Your task to perform on an android device: turn pop-ups off in chrome Image 0: 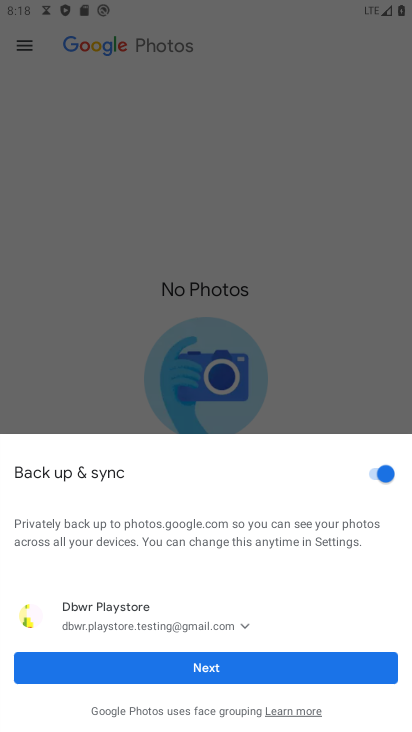
Step 0: press home button
Your task to perform on an android device: turn pop-ups off in chrome Image 1: 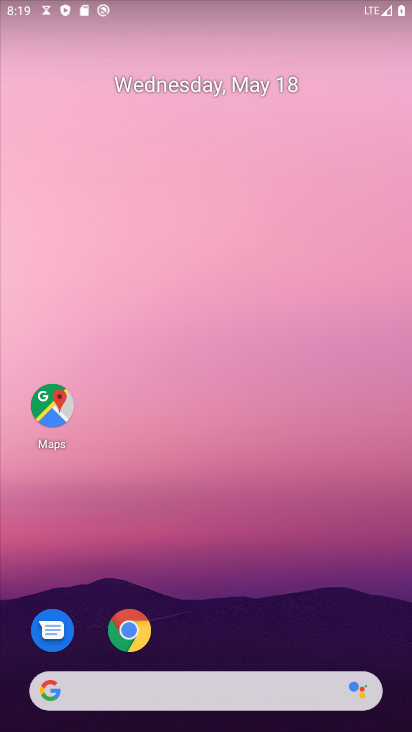
Step 1: drag from (294, 524) to (372, 65)
Your task to perform on an android device: turn pop-ups off in chrome Image 2: 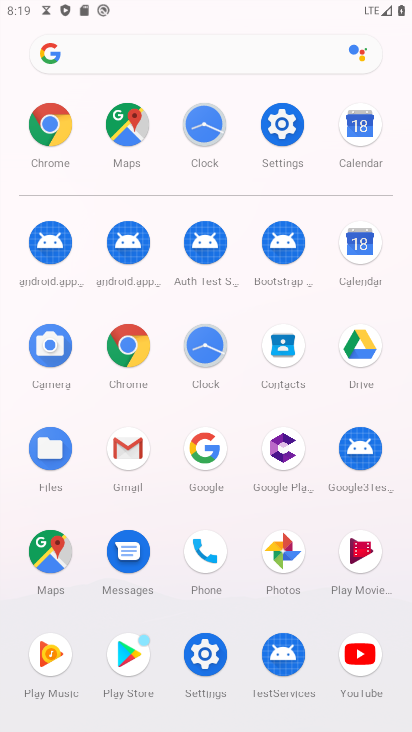
Step 2: click (53, 120)
Your task to perform on an android device: turn pop-ups off in chrome Image 3: 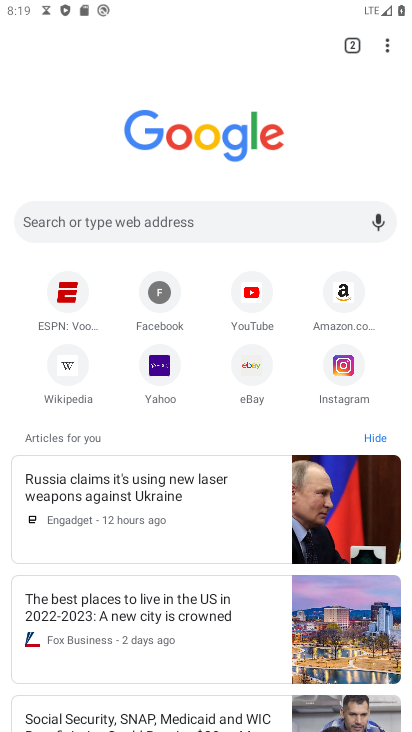
Step 3: drag from (400, 43) to (223, 378)
Your task to perform on an android device: turn pop-ups off in chrome Image 4: 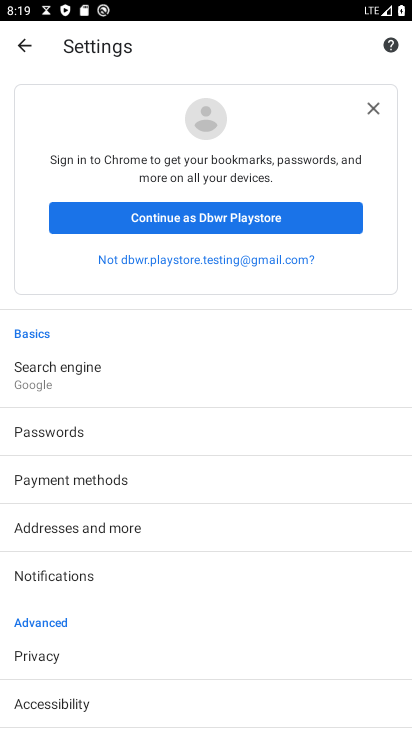
Step 4: drag from (163, 574) to (232, 261)
Your task to perform on an android device: turn pop-ups off in chrome Image 5: 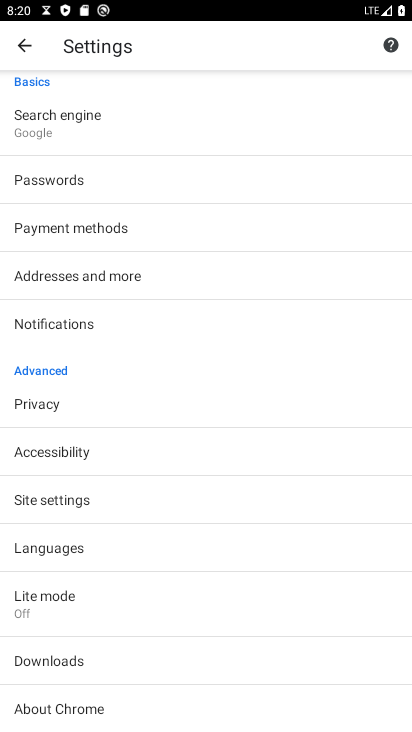
Step 5: drag from (177, 593) to (160, 294)
Your task to perform on an android device: turn pop-ups off in chrome Image 6: 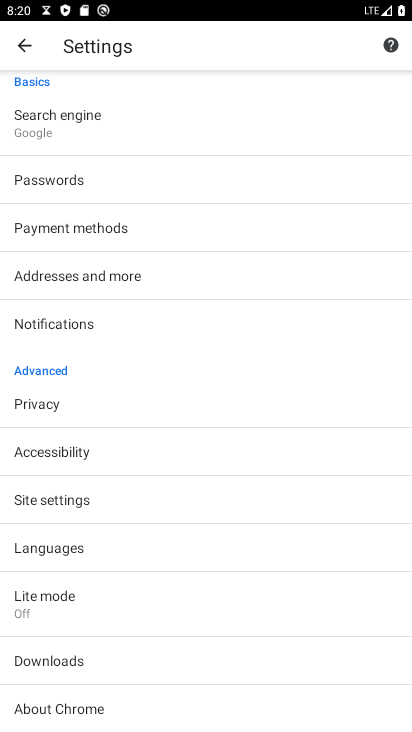
Step 6: click (55, 500)
Your task to perform on an android device: turn pop-ups off in chrome Image 7: 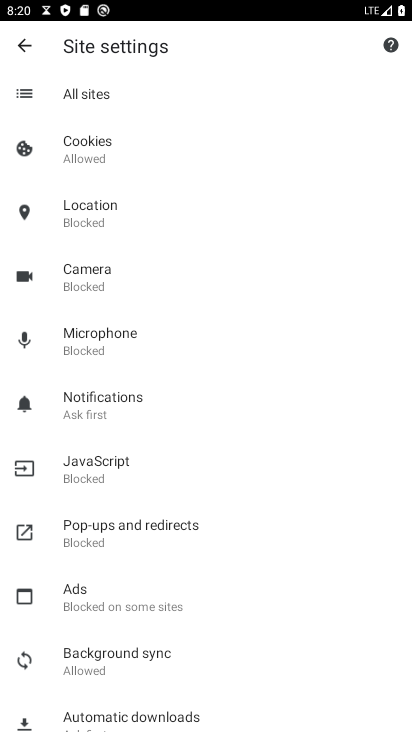
Step 7: click (99, 529)
Your task to perform on an android device: turn pop-ups off in chrome Image 8: 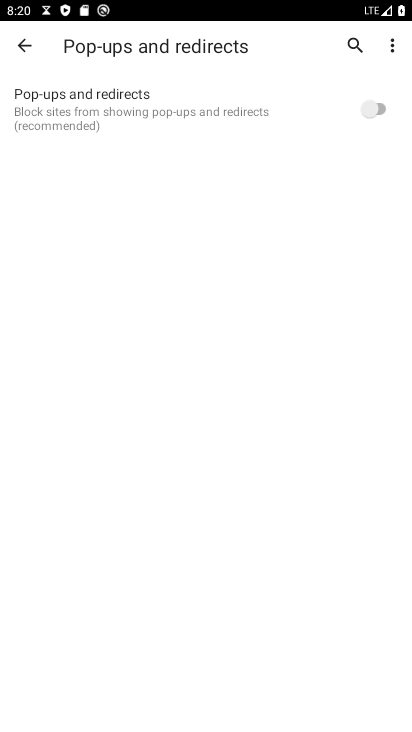
Step 8: task complete